Your task to perform on an android device: What is the news today? Image 0: 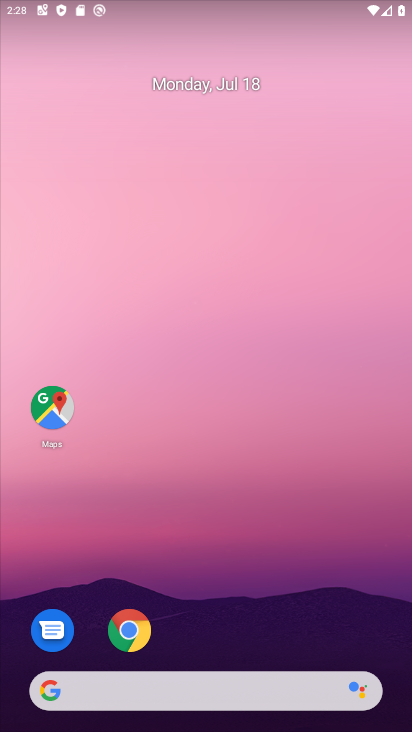
Step 0: drag from (6, 253) to (292, 281)
Your task to perform on an android device: What is the news today? Image 1: 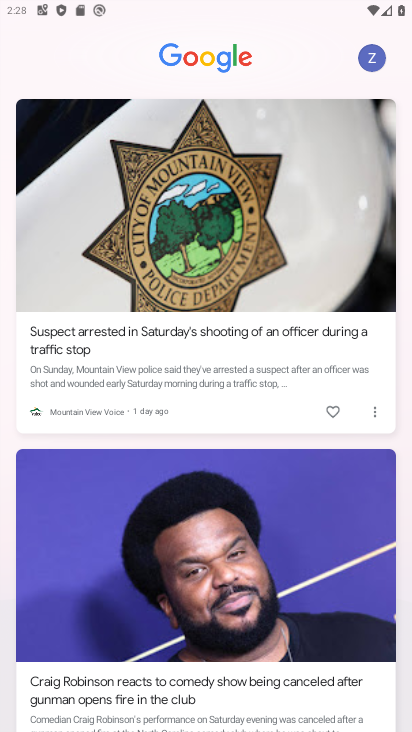
Step 1: task complete